Your task to perform on an android device: find which apps use the phone's location Image 0: 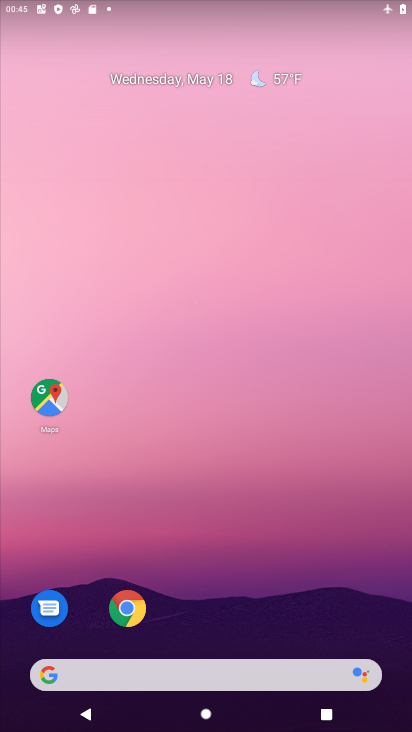
Step 0: drag from (260, 513) to (135, 0)
Your task to perform on an android device: find which apps use the phone's location Image 1: 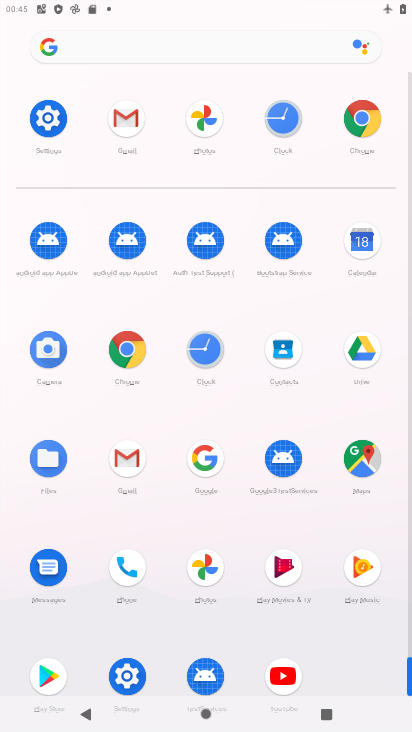
Step 1: click (47, 116)
Your task to perform on an android device: find which apps use the phone's location Image 2: 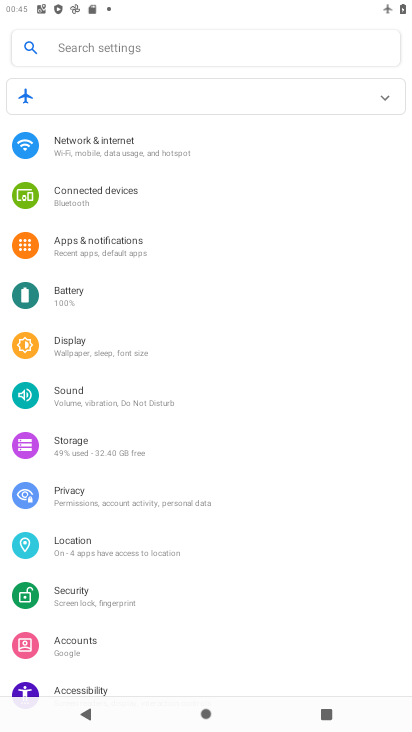
Step 2: click (70, 537)
Your task to perform on an android device: find which apps use the phone's location Image 3: 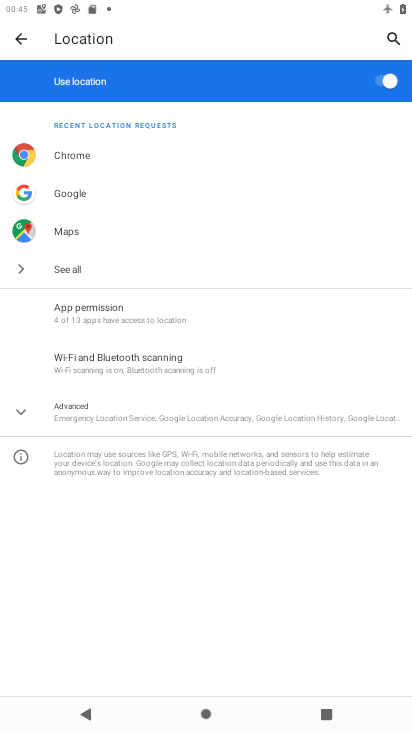
Step 3: task complete